Your task to perform on an android device: set an alarm Image 0: 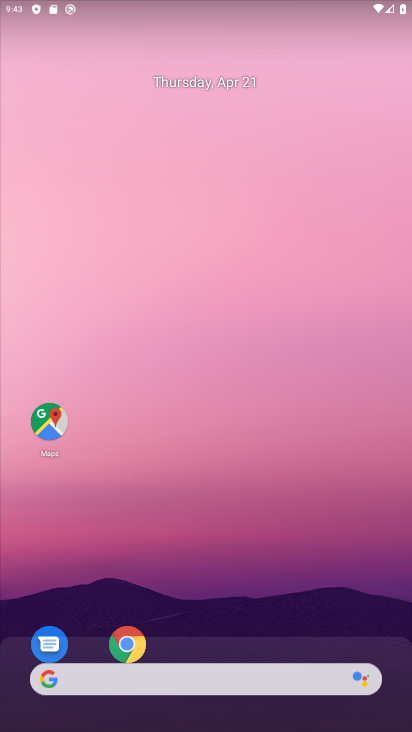
Step 0: drag from (217, 425) to (261, 42)
Your task to perform on an android device: set an alarm Image 1: 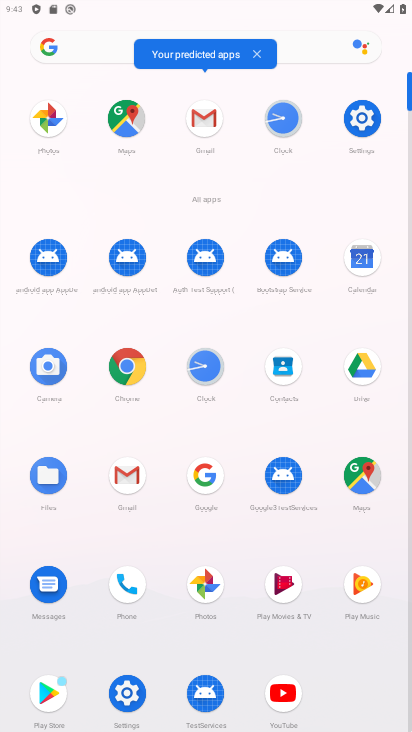
Step 1: click (282, 114)
Your task to perform on an android device: set an alarm Image 2: 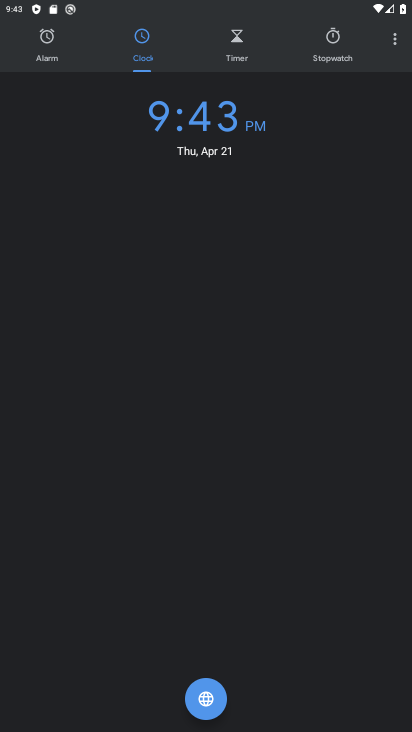
Step 2: click (55, 43)
Your task to perform on an android device: set an alarm Image 3: 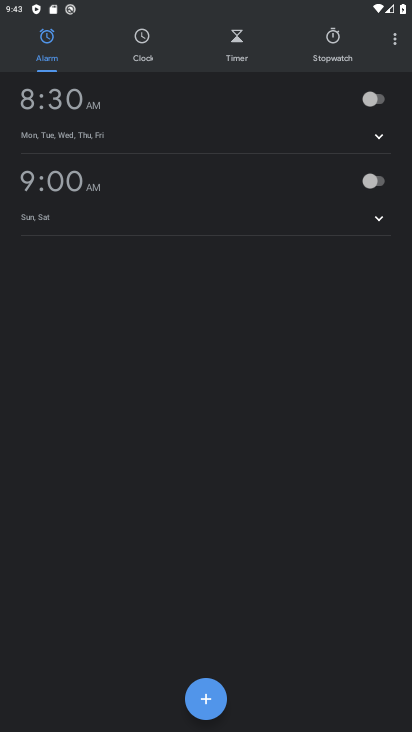
Step 3: click (202, 693)
Your task to perform on an android device: set an alarm Image 4: 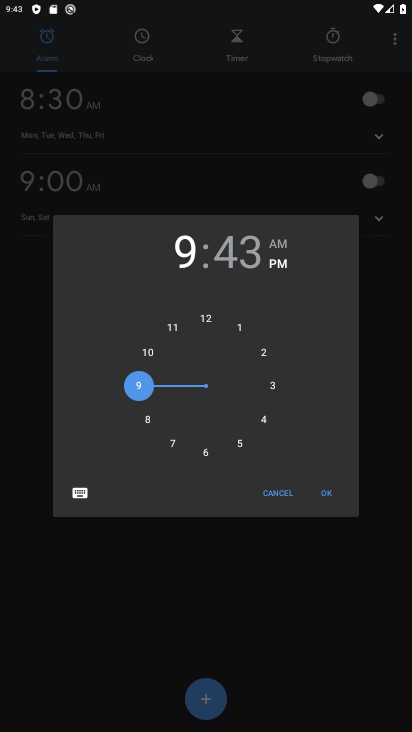
Step 4: click (147, 343)
Your task to perform on an android device: set an alarm Image 5: 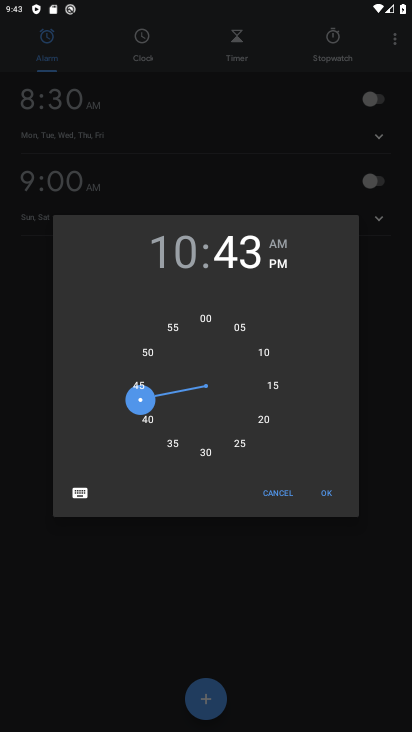
Step 5: click (327, 497)
Your task to perform on an android device: set an alarm Image 6: 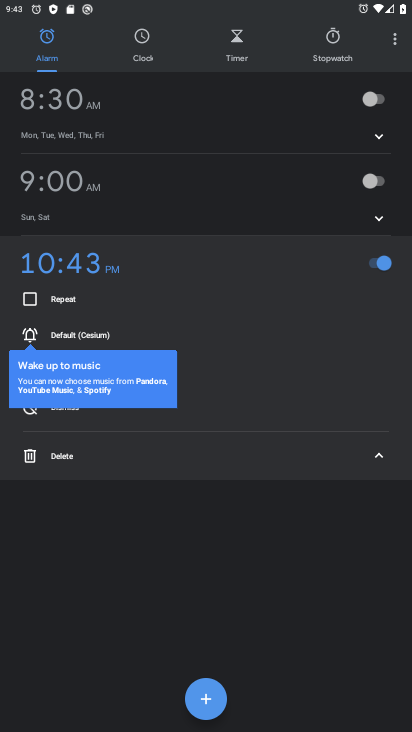
Step 6: task complete